Your task to perform on an android device: toggle javascript in the chrome app Image 0: 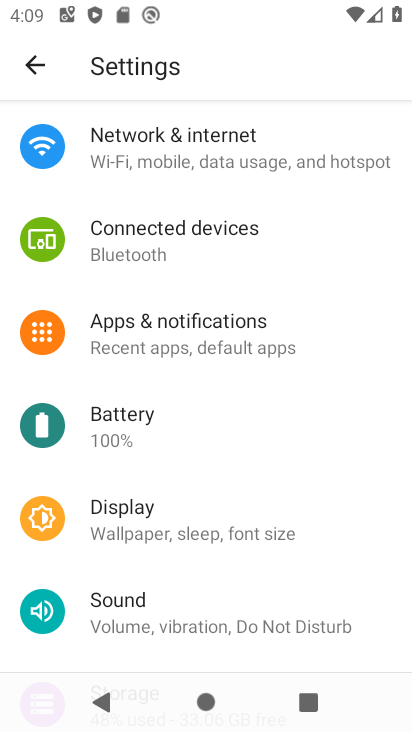
Step 0: press home button
Your task to perform on an android device: toggle javascript in the chrome app Image 1: 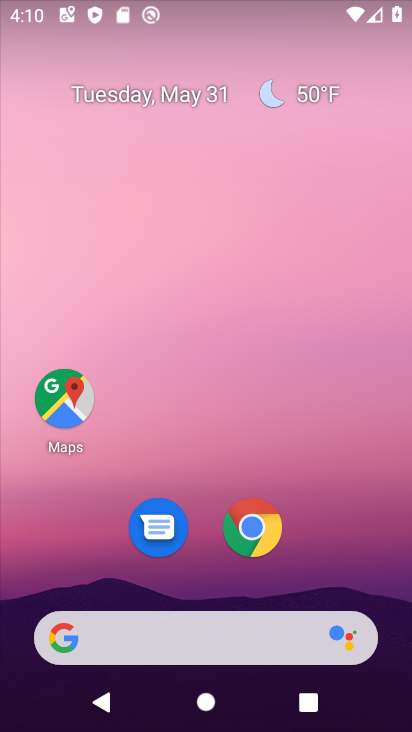
Step 1: click (280, 542)
Your task to perform on an android device: toggle javascript in the chrome app Image 2: 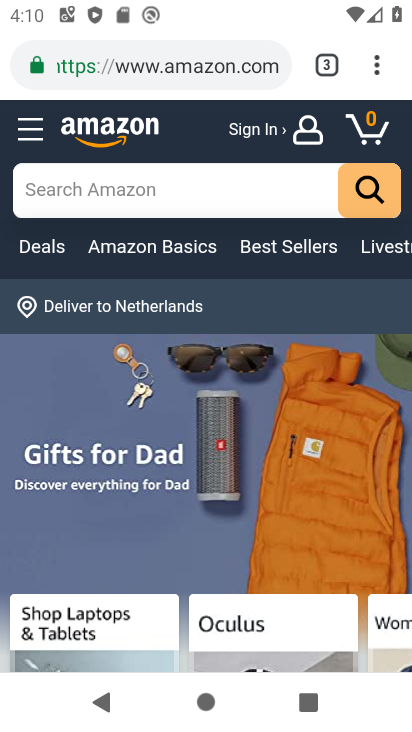
Step 2: click (387, 65)
Your task to perform on an android device: toggle javascript in the chrome app Image 3: 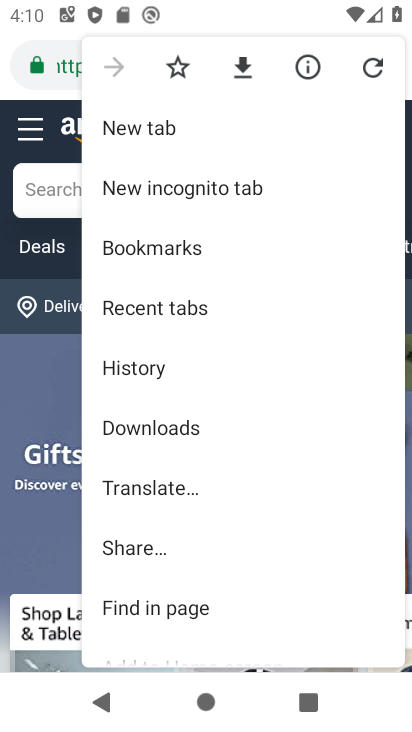
Step 3: drag from (184, 640) to (154, 171)
Your task to perform on an android device: toggle javascript in the chrome app Image 4: 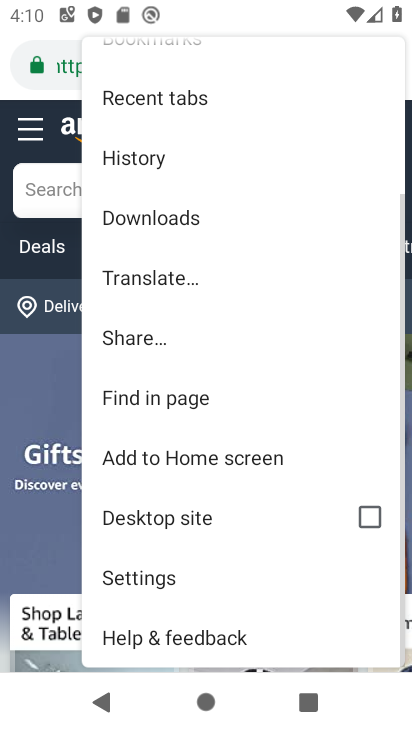
Step 4: click (200, 591)
Your task to perform on an android device: toggle javascript in the chrome app Image 5: 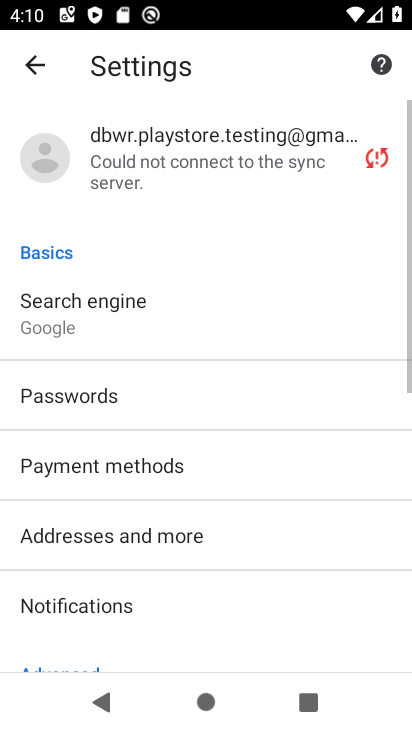
Step 5: drag from (200, 591) to (160, 183)
Your task to perform on an android device: toggle javascript in the chrome app Image 6: 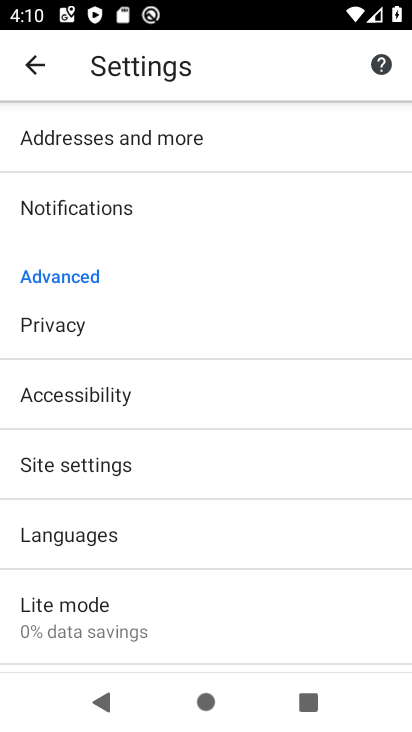
Step 6: click (145, 456)
Your task to perform on an android device: toggle javascript in the chrome app Image 7: 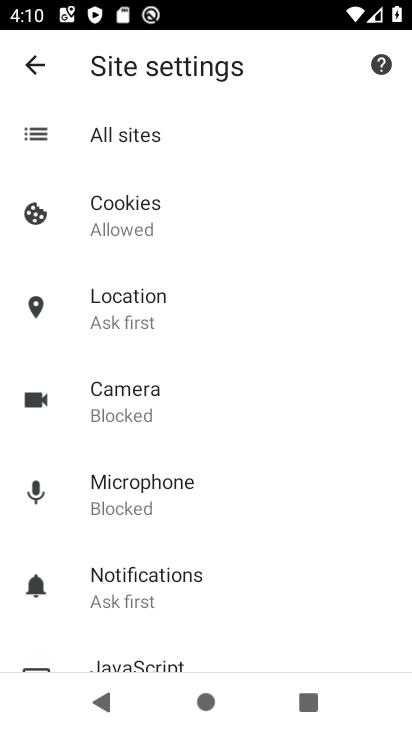
Step 7: drag from (175, 612) to (185, 145)
Your task to perform on an android device: toggle javascript in the chrome app Image 8: 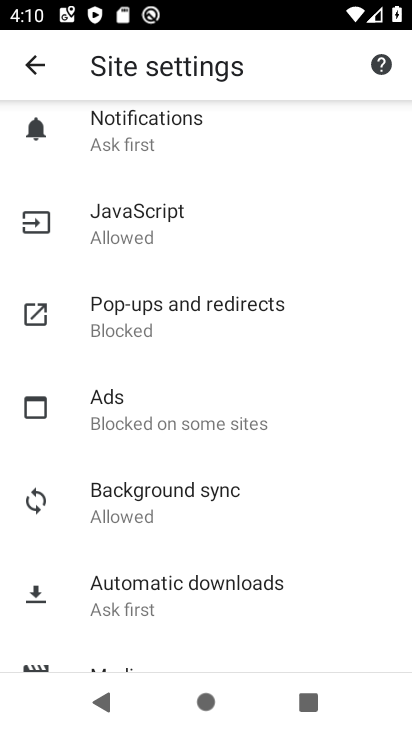
Step 8: click (191, 229)
Your task to perform on an android device: toggle javascript in the chrome app Image 9: 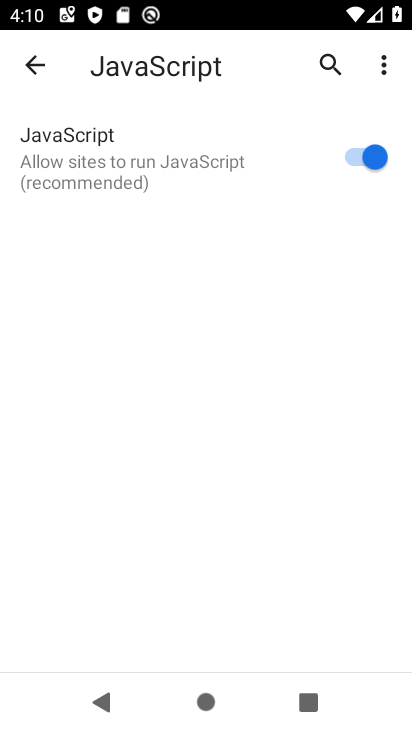
Step 9: click (361, 158)
Your task to perform on an android device: toggle javascript in the chrome app Image 10: 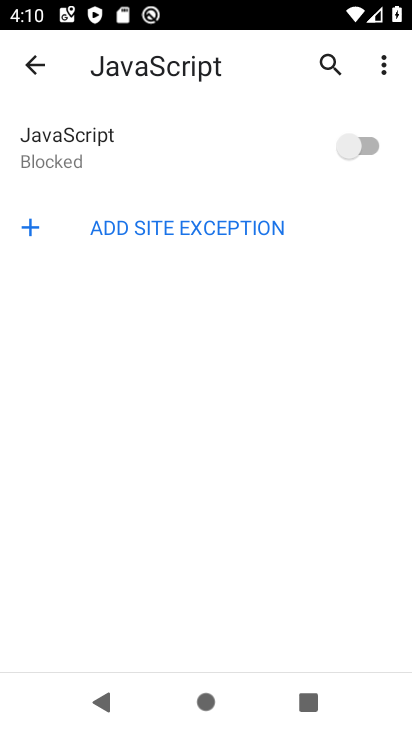
Step 10: task complete